Your task to perform on an android device: Go to Reddit.com Image 0: 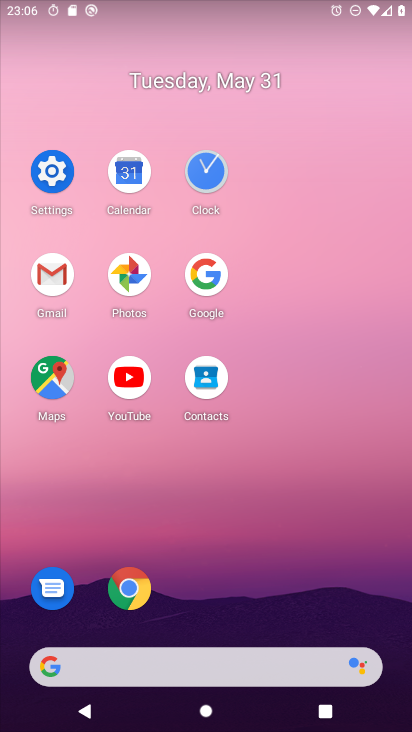
Step 0: click (127, 581)
Your task to perform on an android device: Go to Reddit.com Image 1: 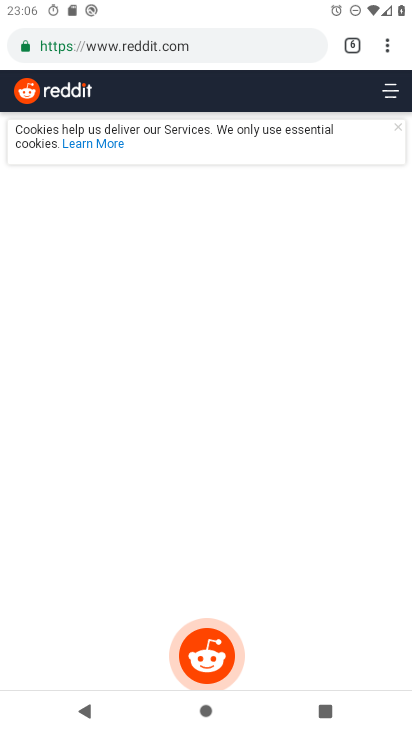
Step 1: task complete